Your task to perform on an android device: Go to wifi settings Image 0: 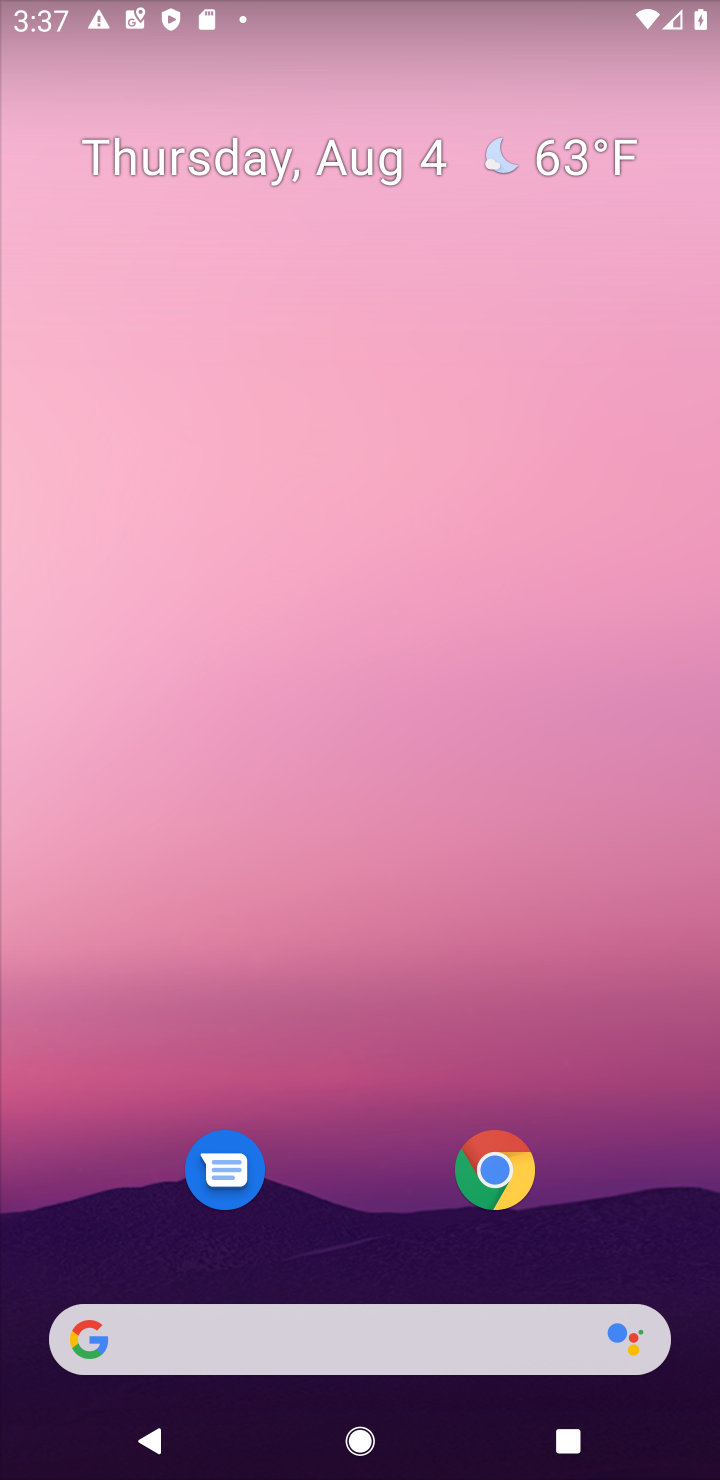
Step 0: drag from (638, 1242) to (559, 259)
Your task to perform on an android device: Go to wifi settings Image 1: 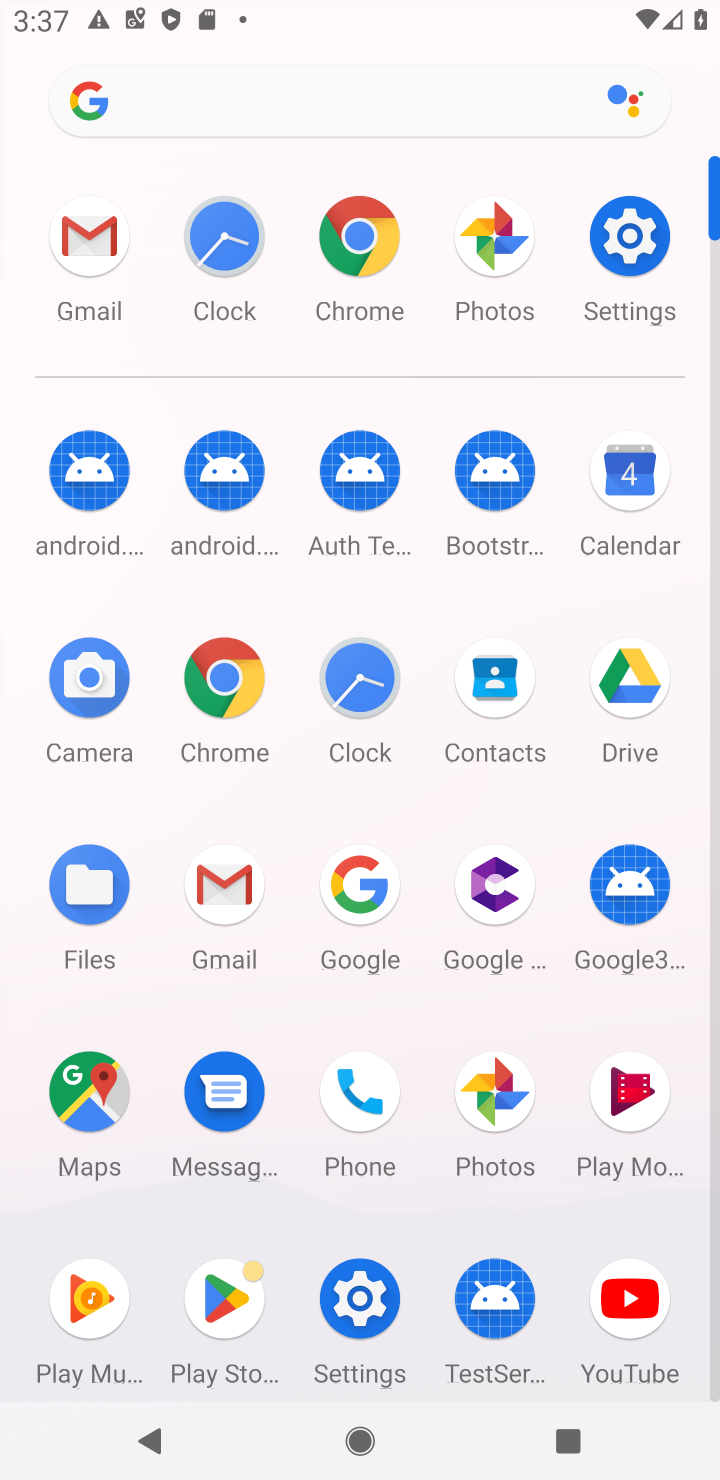
Step 1: click (356, 1295)
Your task to perform on an android device: Go to wifi settings Image 2: 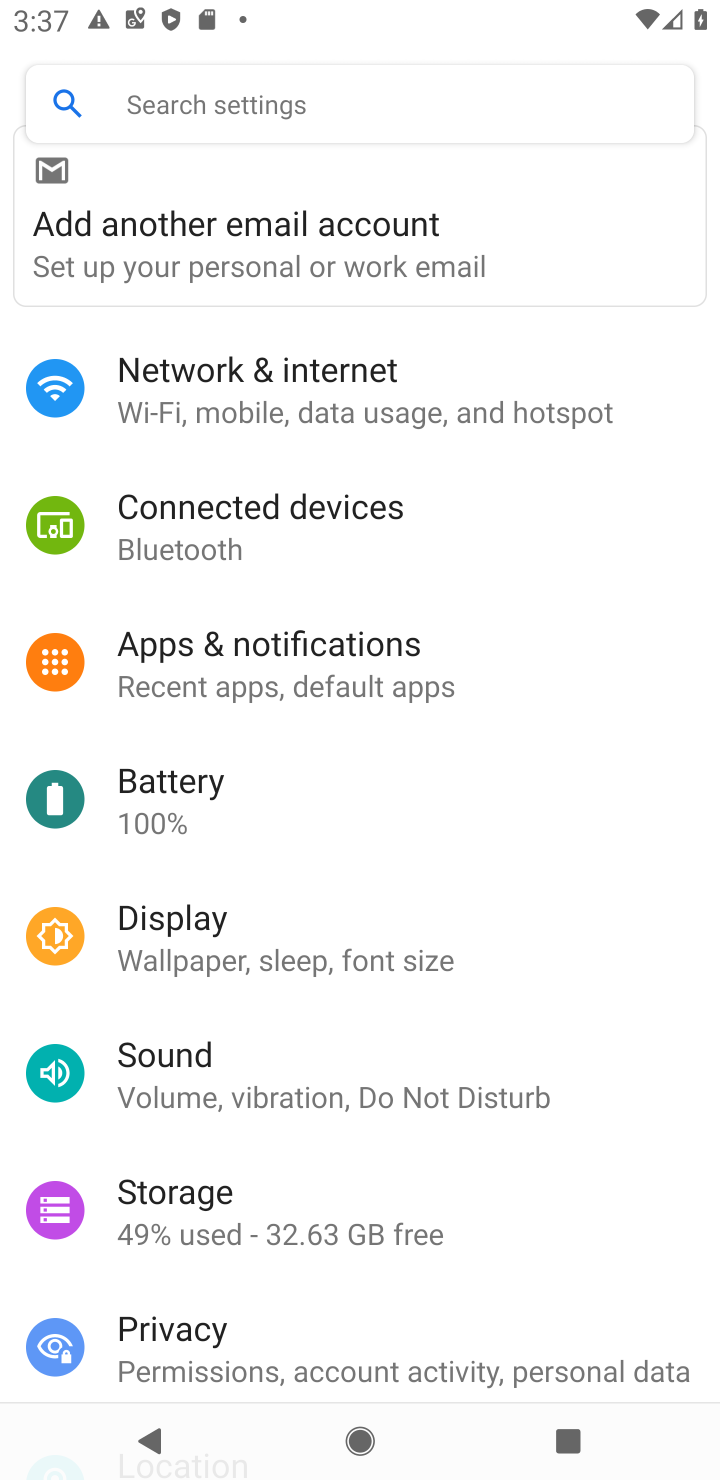
Step 2: click (174, 372)
Your task to perform on an android device: Go to wifi settings Image 3: 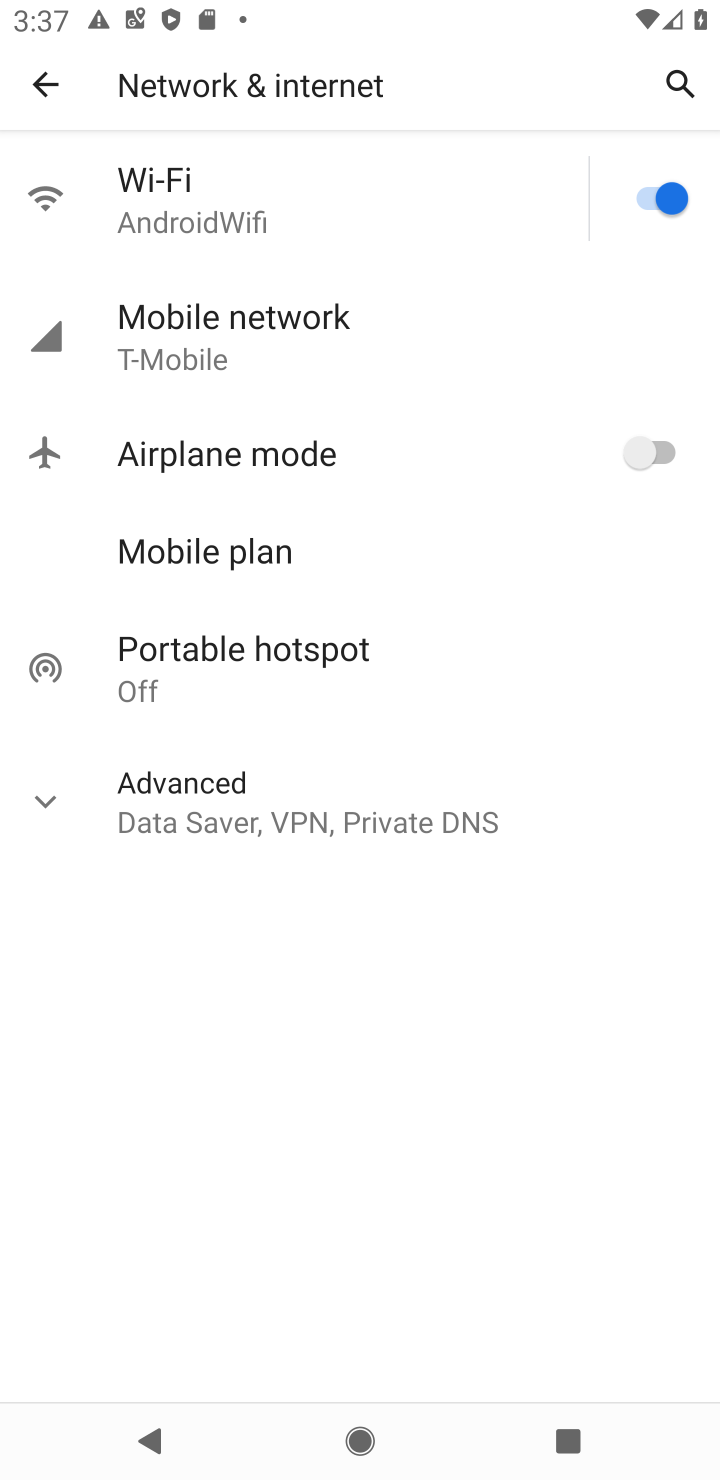
Step 3: click (150, 167)
Your task to perform on an android device: Go to wifi settings Image 4: 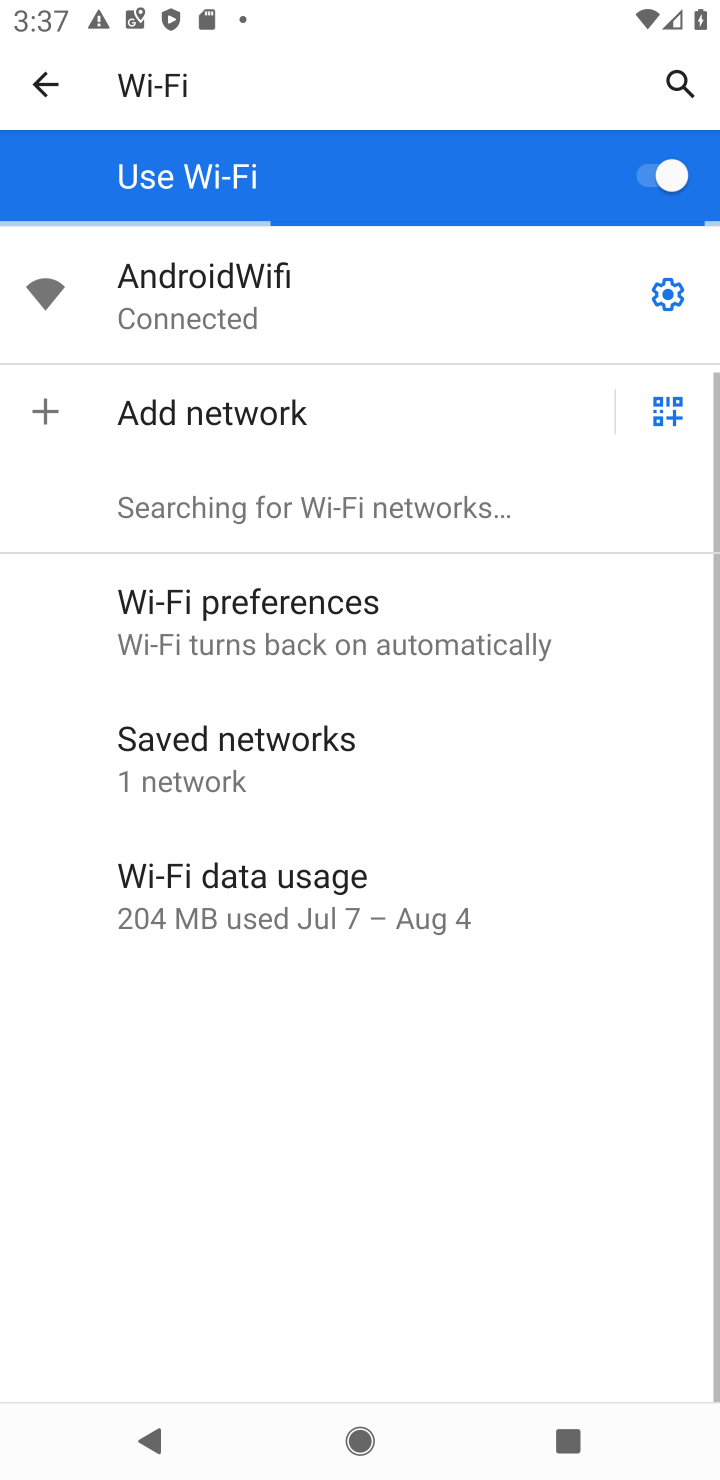
Step 4: click (662, 299)
Your task to perform on an android device: Go to wifi settings Image 5: 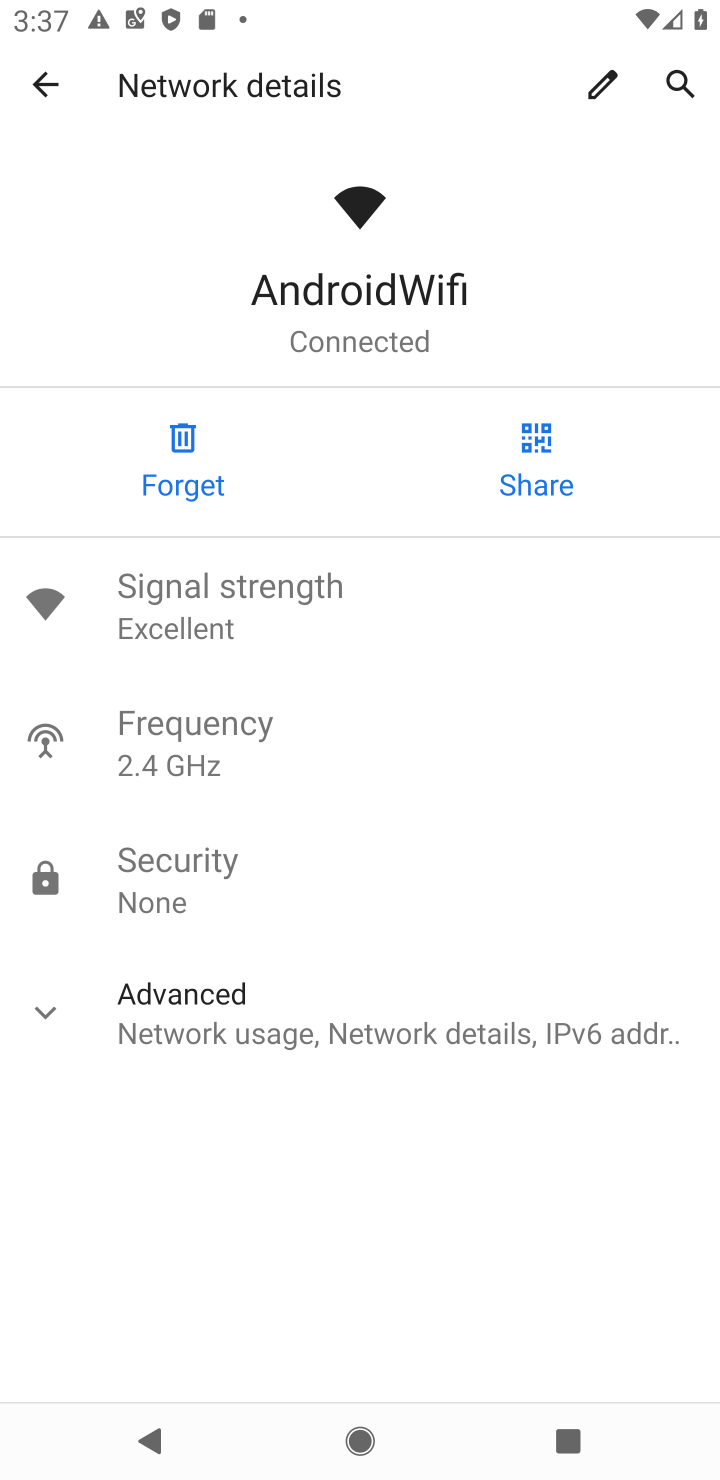
Step 5: task complete